Your task to perform on an android device: turn off notifications in google photos Image 0: 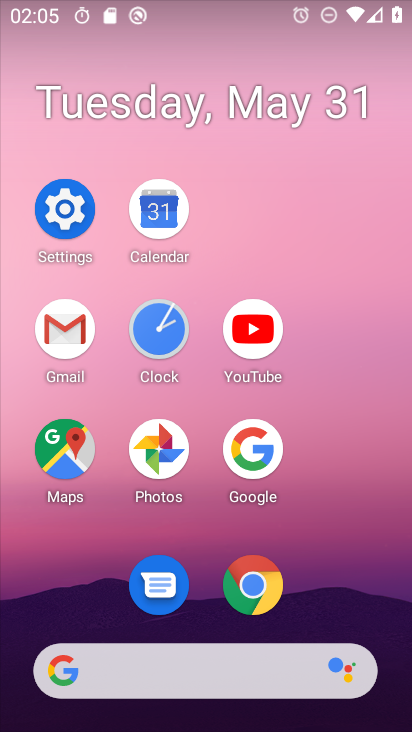
Step 0: click (85, 212)
Your task to perform on an android device: turn off notifications in google photos Image 1: 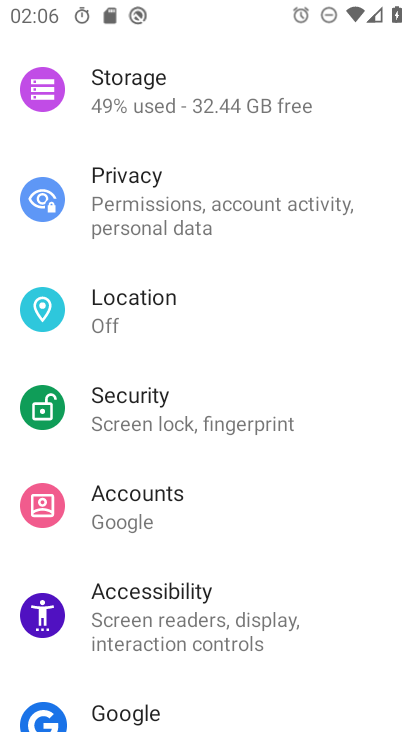
Step 1: press home button
Your task to perform on an android device: turn off notifications in google photos Image 2: 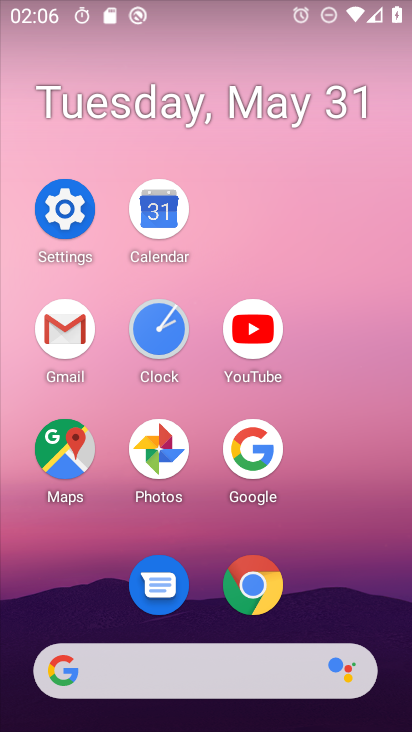
Step 2: click (162, 468)
Your task to perform on an android device: turn off notifications in google photos Image 3: 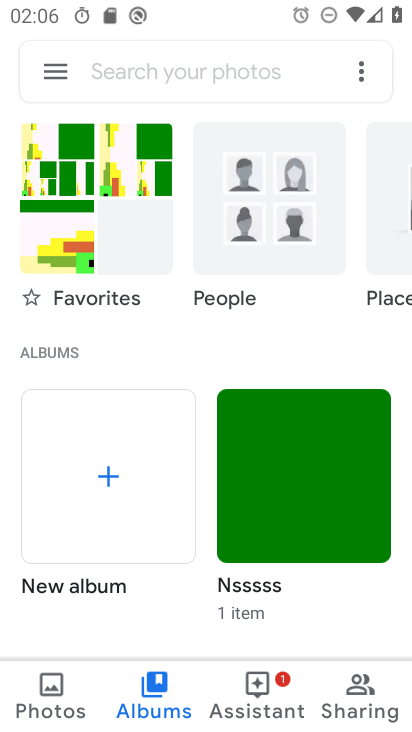
Step 3: click (57, 85)
Your task to perform on an android device: turn off notifications in google photos Image 4: 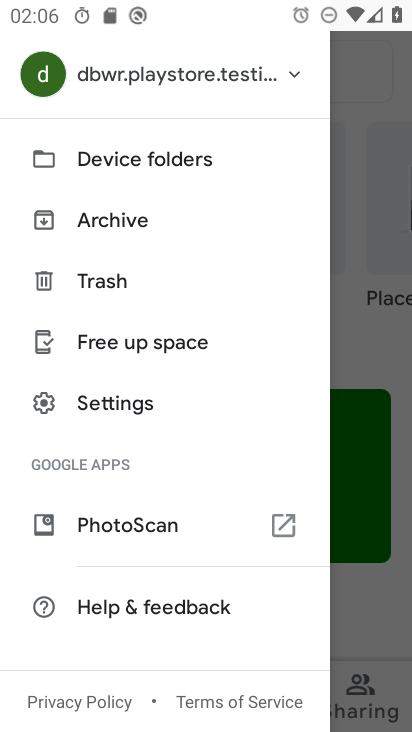
Step 4: click (130, 403)
Your task to perform on an android device: turn off notifications in google photos Image 5: 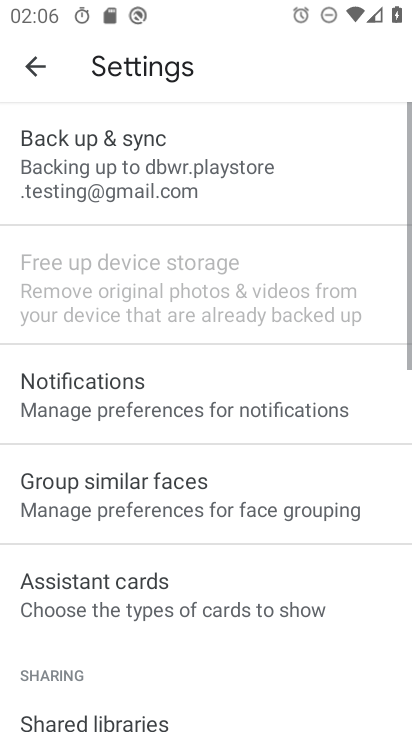
Step 5: click (130, 403)
Your task to perform on an android device: turn off notifications in google photos Image 6: 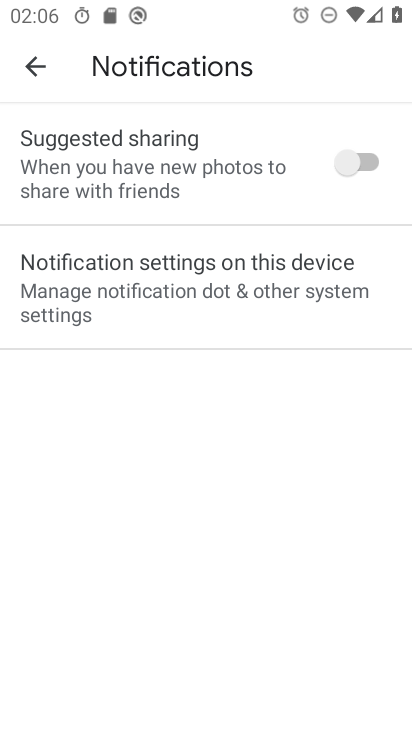
Step 6: click (183, 280)
Your task to perform on an android device: turn off notifications in google photos Image 7: 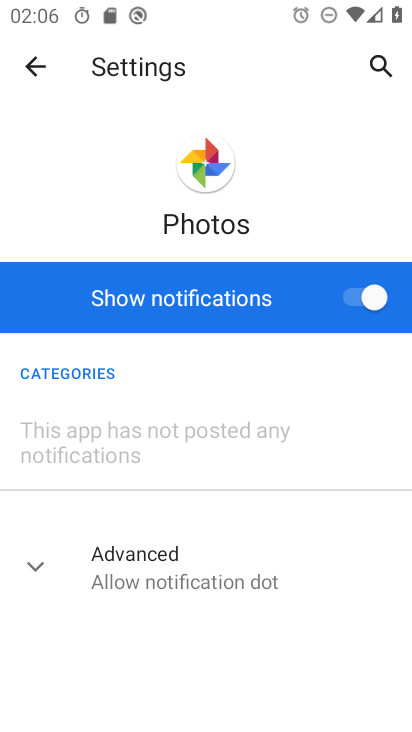
Step 7: click (384, 294)
Your task to perform on an android device: turn off notifications in google photos Image 8: 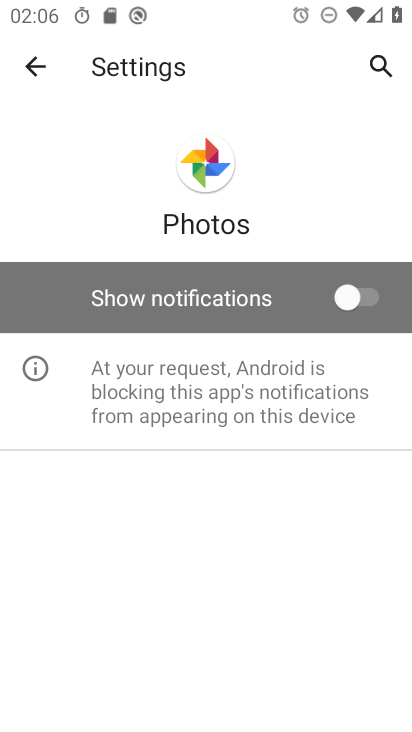
Step 8: task complete